Your task to perform on an android device: change your default location settings in chrome Image 0: 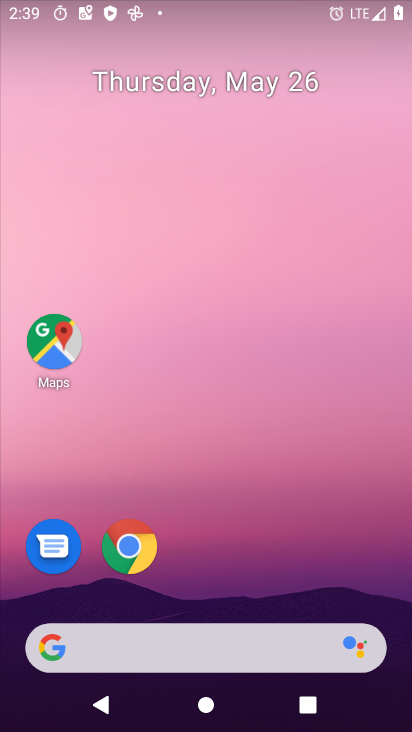
Step 0: drag from (213, 546) to (254, 109)
Your task to perform on an android device: change your default location settings in chrome Image 1: 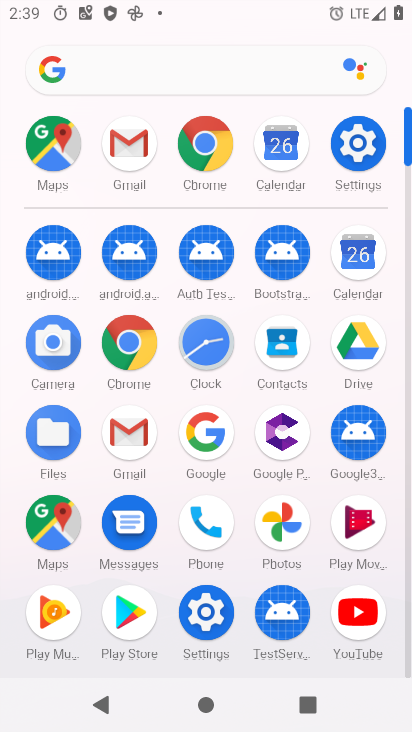
Step 1: click (208, 138)
Your task to perform on an android device: change your default location settings in chrome Image 2: 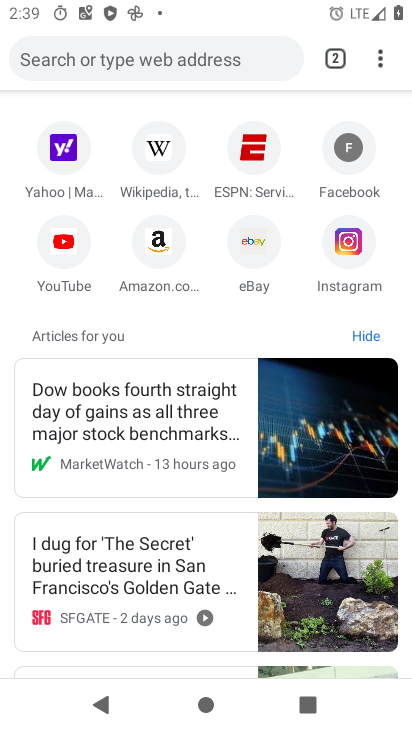
Step 2: click (367, 55)
Your task to perform on an android device: change your default location settings in chrome Image 3: 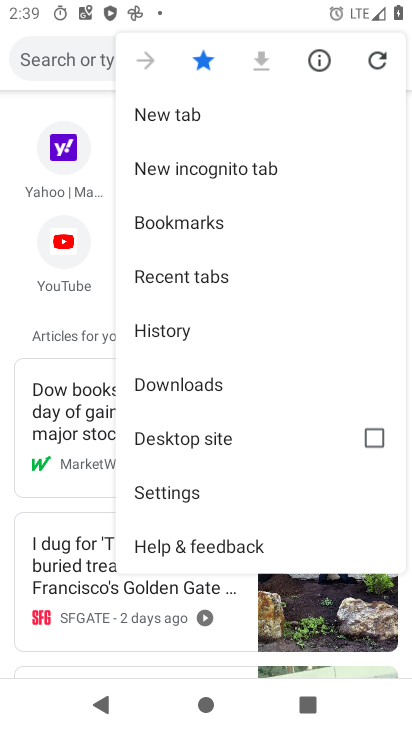
Step 3: click (171, 484)
Your task to perform on an android device: change your default location settings in chrome Image 4: 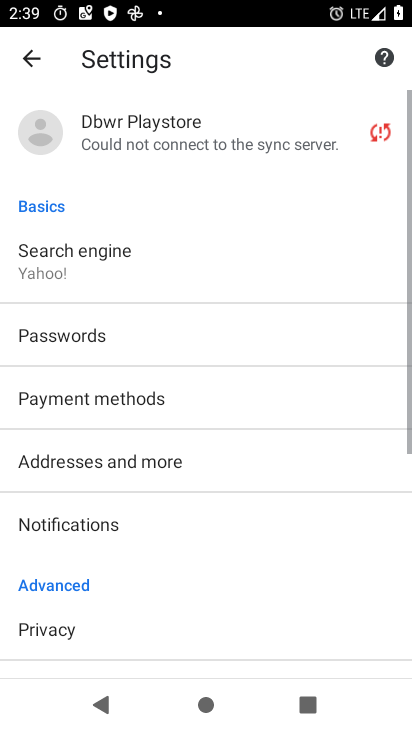
Step 4: drag from (181, 587) to (298, 104)
Your task to perform on an android device: change your default location settings in chrome Image 5: 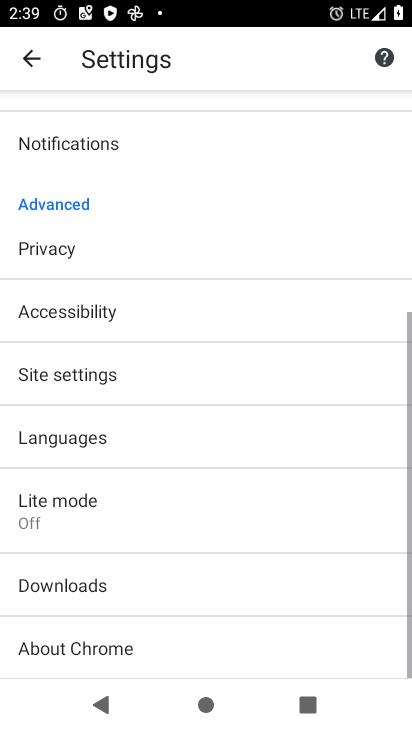
Step 5: drag from (111, 561) to (169, 296)
Your task to perform on an android device: change your default location settings in chrome Image 6: 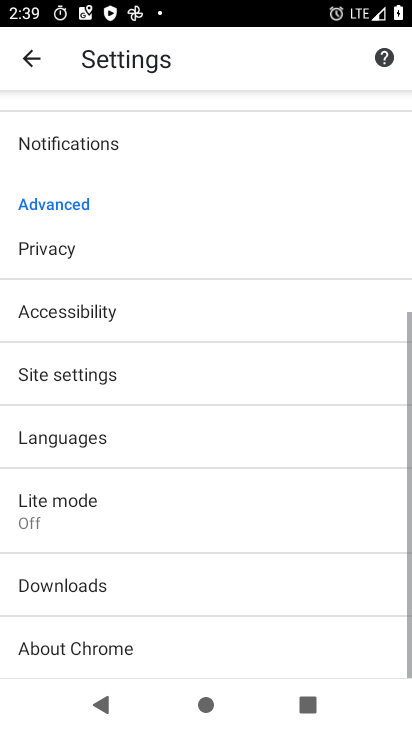
Step 6: click (77, 374)
Your task to perform on an android device: change your default location settings in chrome Image 7: 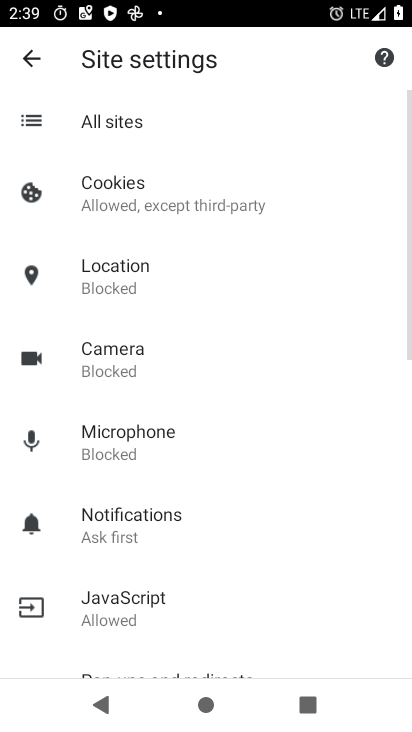
Step 7: click (136, 272)
Your task to perform on an android device: change your default location settings in chrome Image 8: 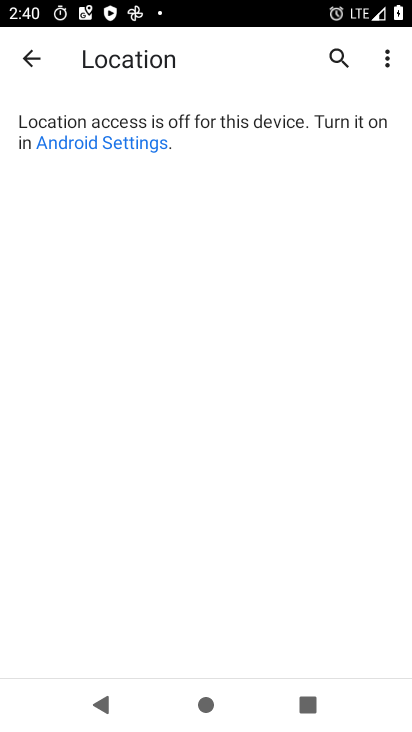
Step 8: task complete